Your task to perform on an android device: Go to privacy settings Image 0: 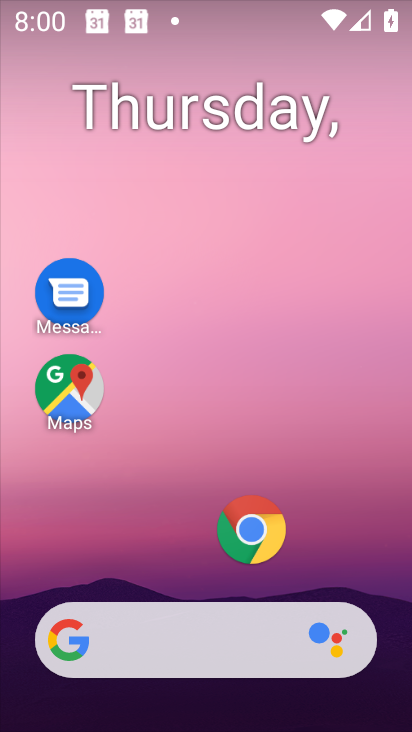
Step 0: drag from (178, 570) to (401, 314)
Your task to perform on an android device: Go to privacy settings Image 1: 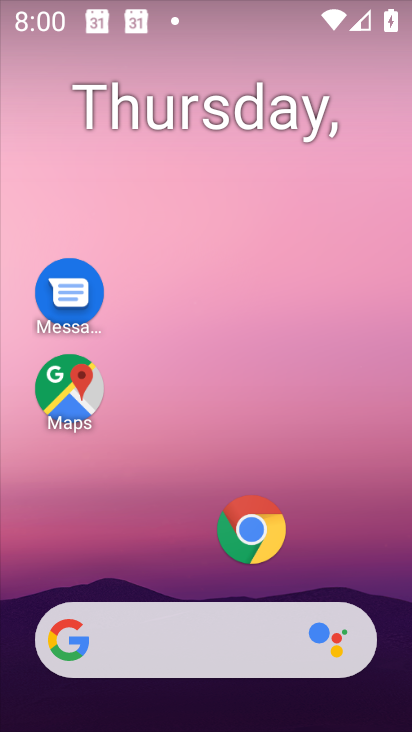
Step 1: click (243, 196)
Your task to perform on an android device: Go to privacy settings Image 2: 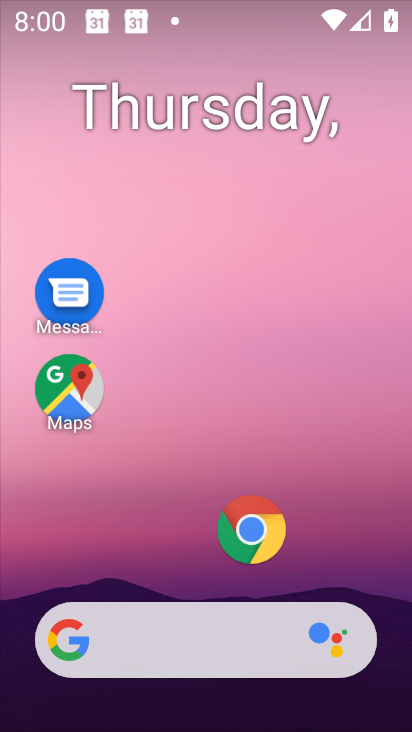
Step 2: drag from (144, 572) to (204, 134)
Your task to perform on an android device: Go to privacy settings Image 3: 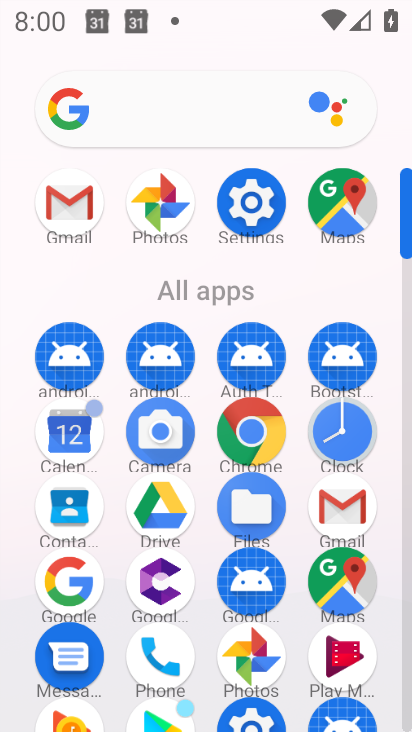
Step 3: click (232, 196)
Your task to perform on an android device: Go to privacy settings Image 4: 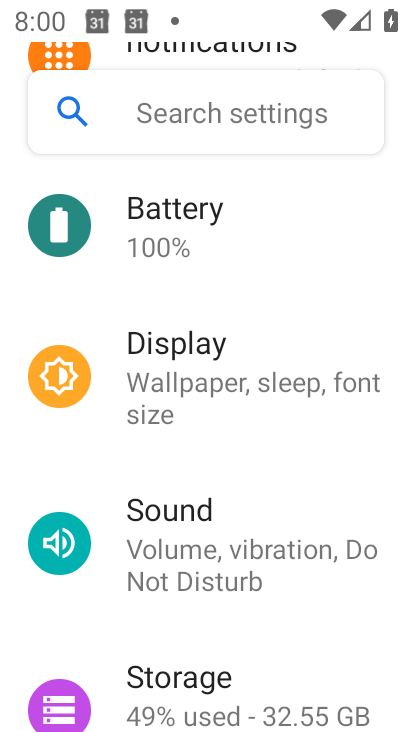
Step 4: drag from (145, 670) to (235, 261)
Your task to perform on an android device: Go to privacy settings Image 5: 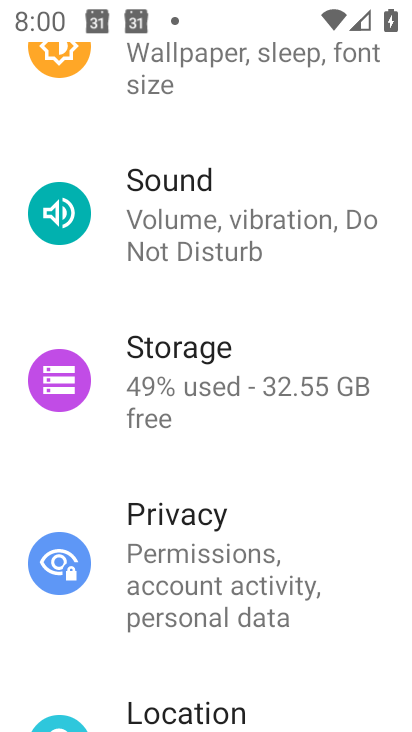
Step 5: click (178, 583)
Your task to perform on an android device: Go to privacy settings Image 6: 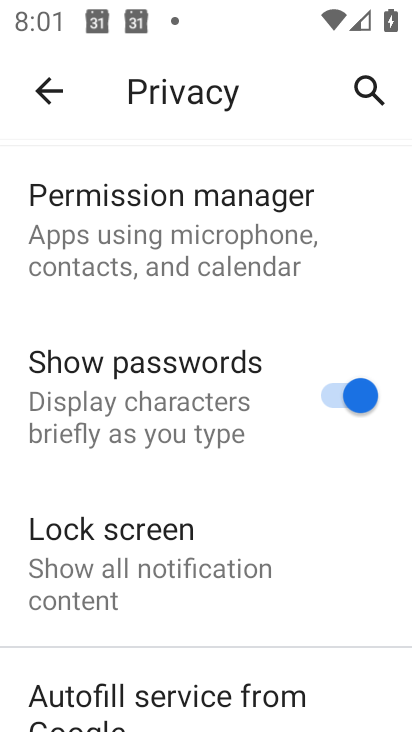
Step 6: task complete